Your task to perform on an android device: Go to Reddit.com Image 0: 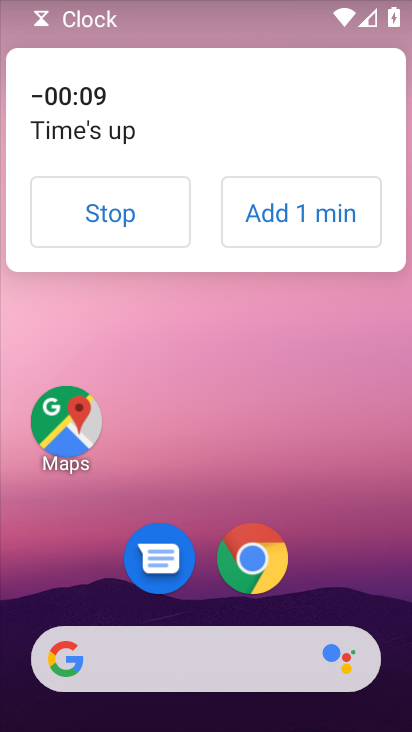
Step 0: drag from (364, 572) to (369, 76)
Your task to perform on an android device: Go to Reddit.com Image 1: 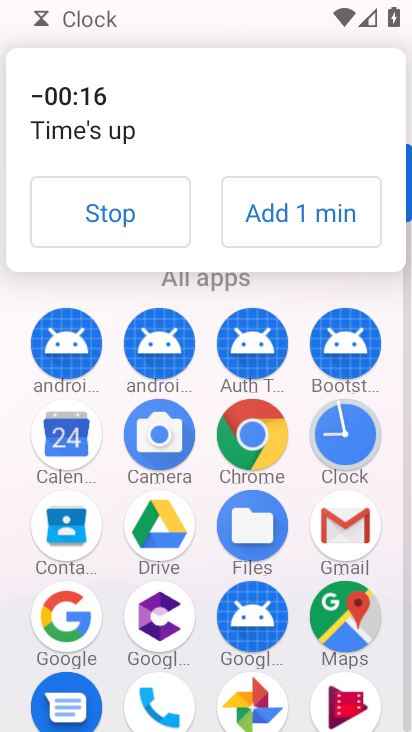
Step 1: click (269, 429)
Your task to perform on an android device: Go to Reddit.com Image 2: 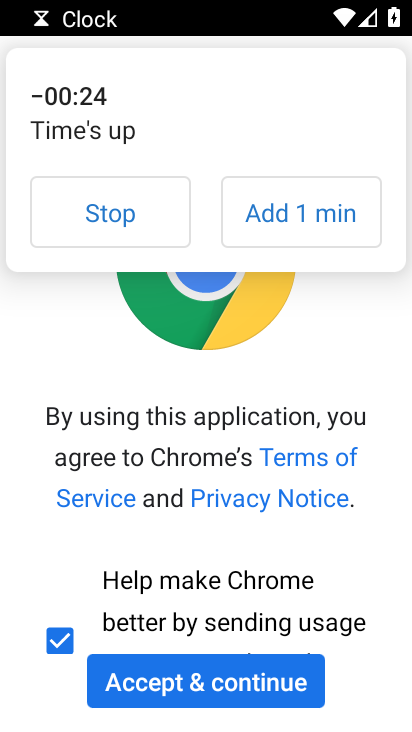
Step 2: click (242, 682)
Your task to perform on an android device: Go to Reddit.com Image 3: 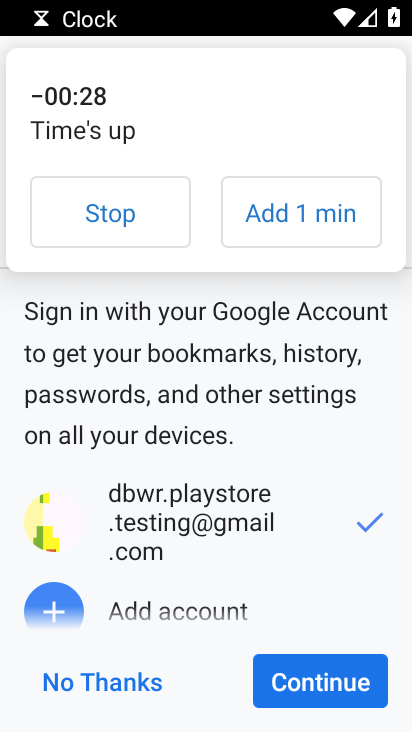
Step 3: click (354, 690)
Your task to perform on an android device: Go to Reddit.com Image 4: 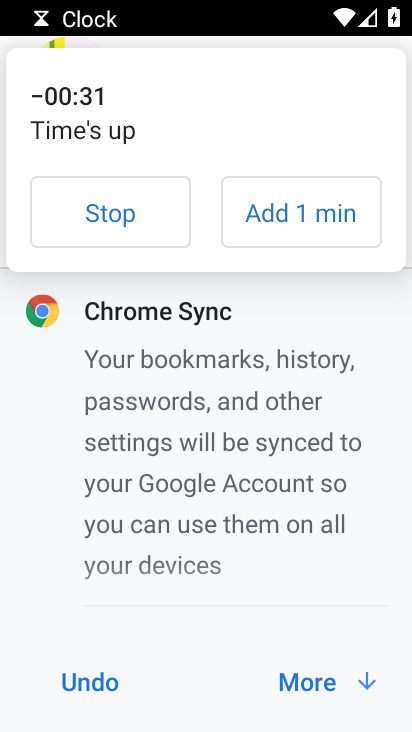
Step 4: click (357, 678)
Your task to perform on an android device: Go to Reddit.com Image 5: 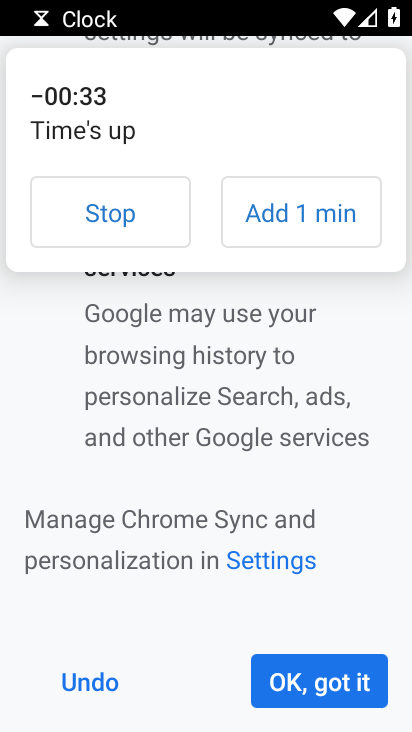
Step 5: click (360, 688)
Your task to perform on an android device: Go to Reddit.com Image 6: 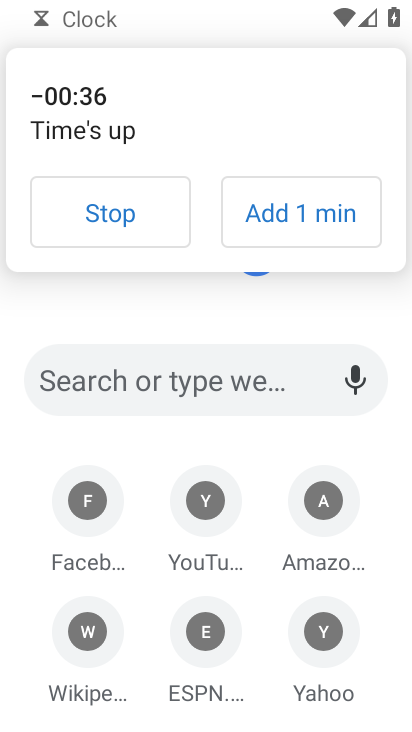
Step 6: click (143, 201)
Your task to perform on an android device: Go to Reddit.com Image 7: 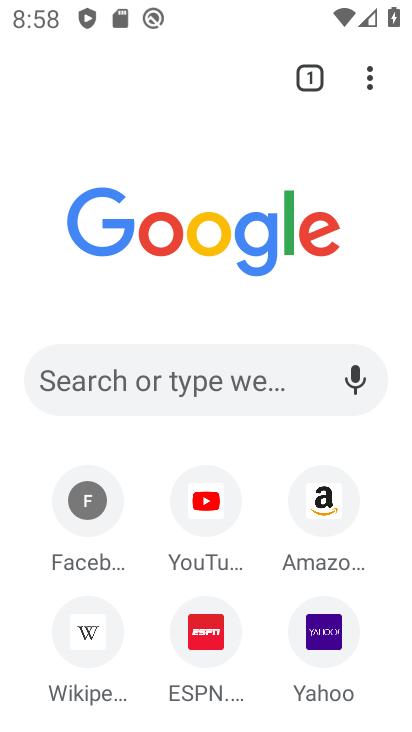
Step 7: click (311, 371)
Your task to perform on an android device: Go to Reddit.com Image 8: 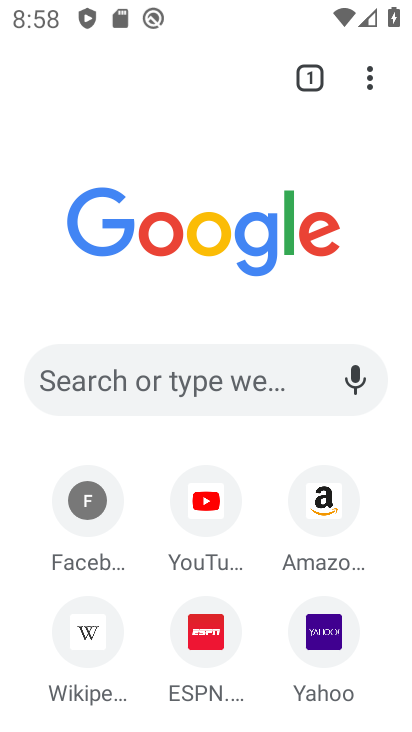
Step 8: click (94, 377)
Your task to perform on an android device: Go to Reddit.com Image 9: 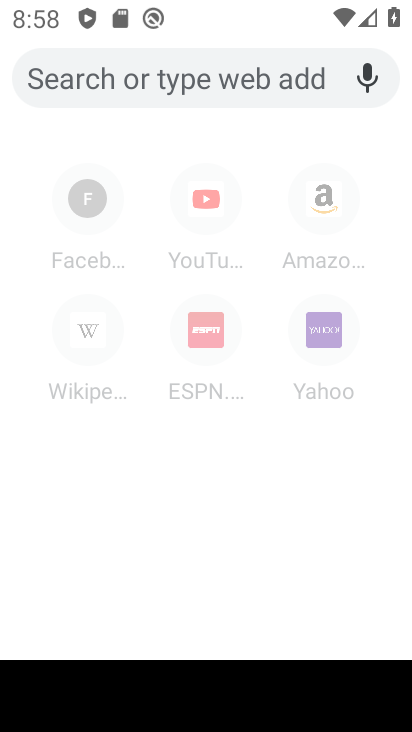
Step 9: type "reddit.com"
Your task to perform on an android device: Go to Reddit.com Image 10: 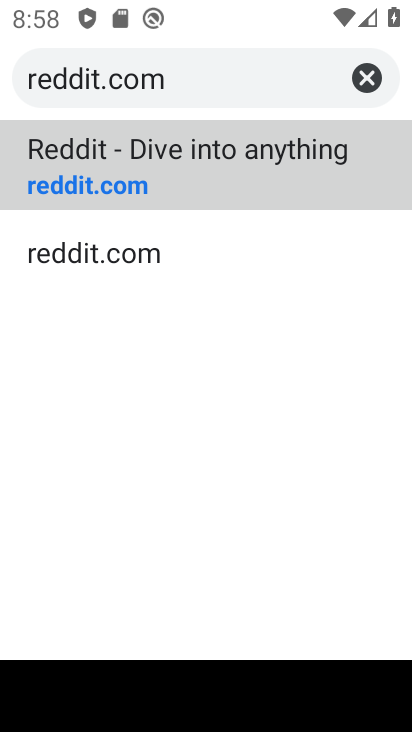
Step 10: click (239, 159)
Your task to perform on an android device: Go to Reddit.com Image 11: 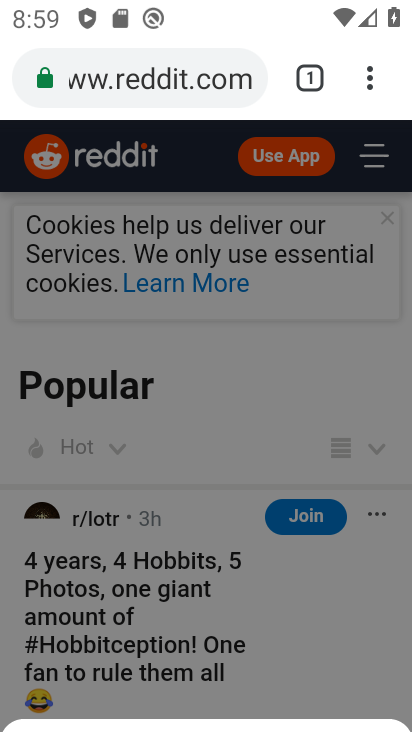
Step 11: task complete